Your task to perform on an android device: move a message to another label in the gmail app Image 0: 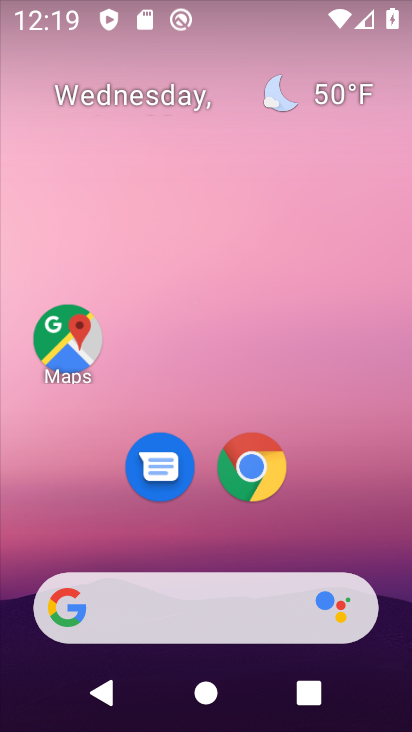
Step 0: drag from (215, 357) to (263, 20)
Your task to perform on an android device: move a message to another label in the gmail app Image 1: 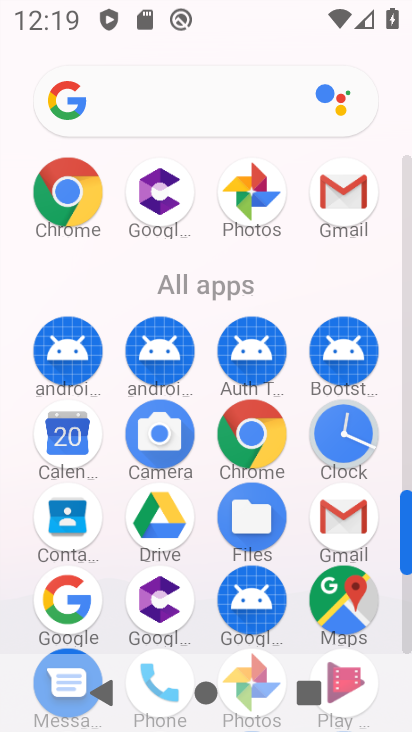
Step 1: click (350, 193)
Your task to perform on an android device: move a message to another label in the gmail app Image 2: 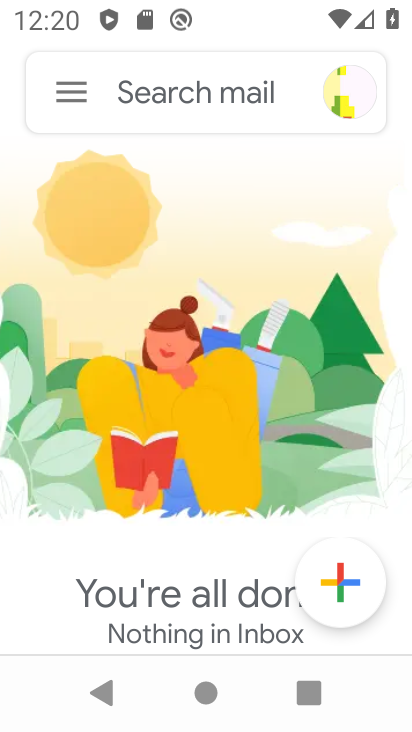
Step 2: task complete